Your task to perform on an android device: Open Google Chrome and open the bookmarks view Image 0: 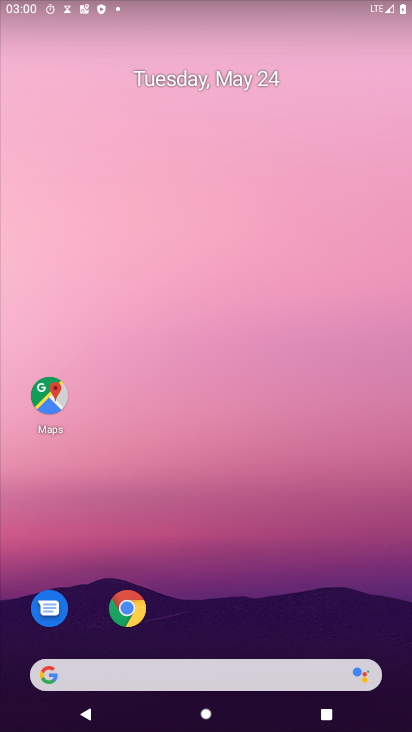
Step 0: click (131, 607)
Your task to perform on an android device: Open Google Chrome and open the bookmarks view Image 1: 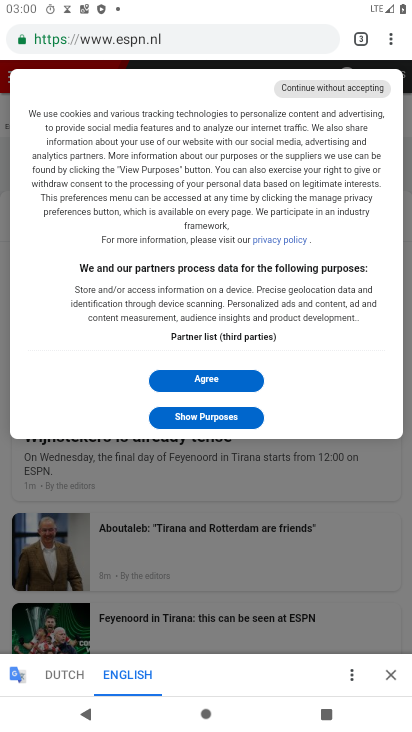
Step 1: click (390, 40)
Your task to perform on an android device: Open Google Chrome and open the bookmarks view Image 2: 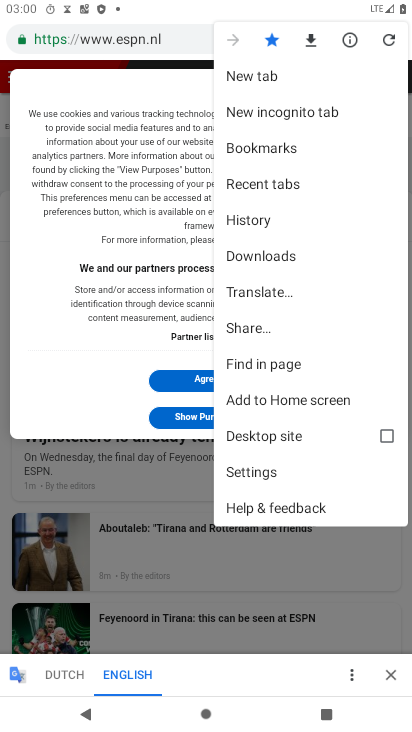
Step 2: click (277, 146)
Your task to perform on an android device: Open Google Chrome and open the bookmarks view Image 3: 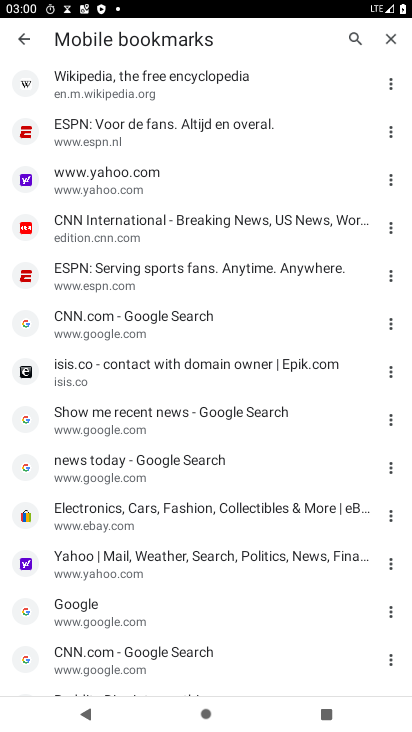
Step 3: task complete